Your task to perform on an android device: Go to Maps Image 0: 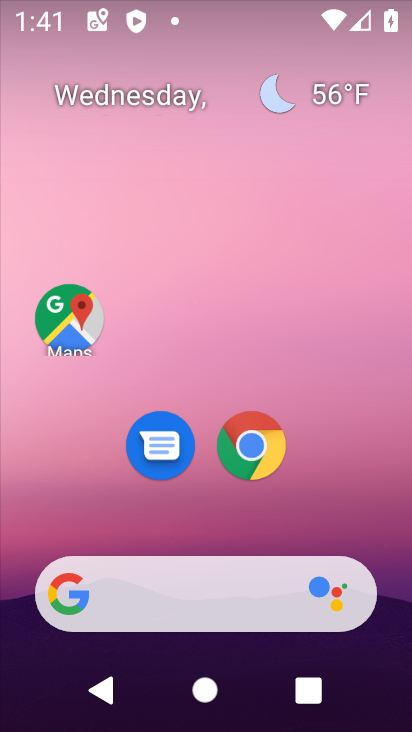
Step 0: click (56, 310)
Your task to perform on an android device: Go to Maps Image 1: 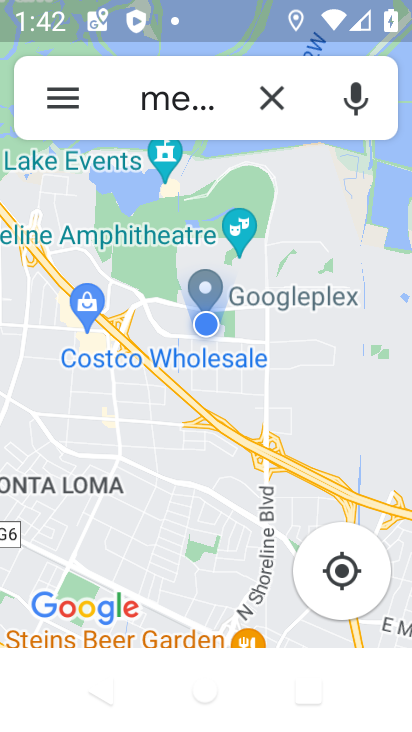
Step 1: task complete